Your task to perform on an android device: Go to Google Image 0: 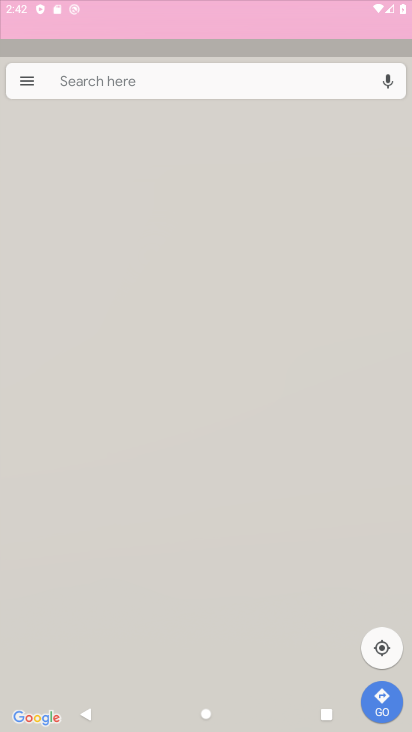
Step 0: drag from (310, 151) to (324, 0)
Your task to perform on an android device: Go to Google Image 1: 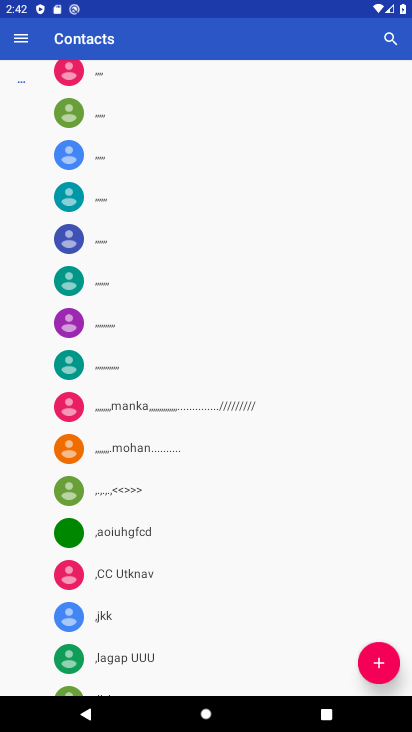
Step 1: press home button
Your task to perform on an android device: Go to Google Image 2: 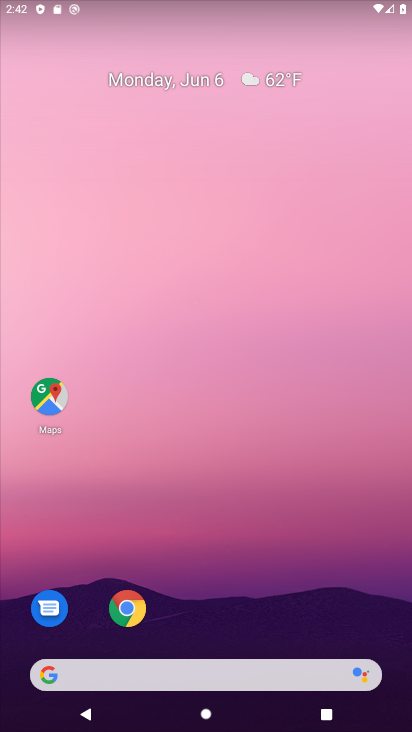
Step 2: drag from (242, 629) to (362, 23)
Your task to perform on an android device: Go to Google Image 3: 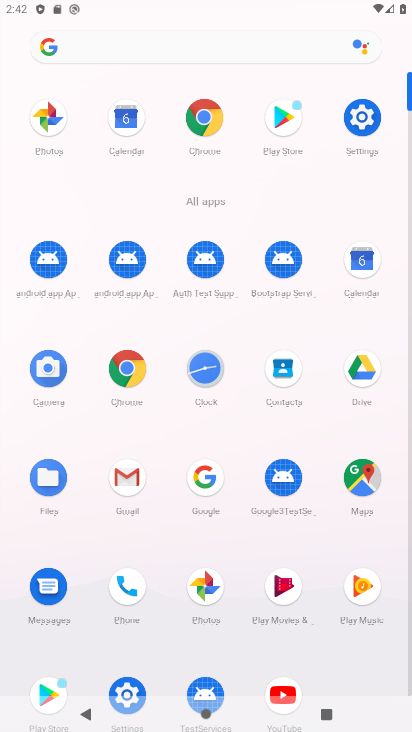
Step 3: click (200, 472)
Your task to perform on an android device: Go to Google Image 4: 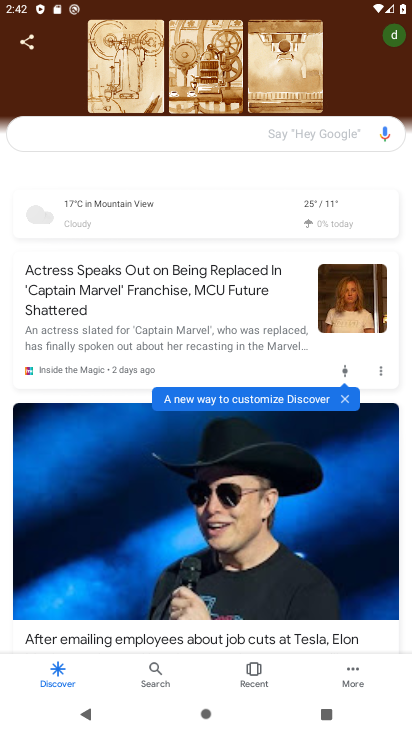
Step 4: task complete